Your task to perform on an android device: Open the stopwatch Image 0: 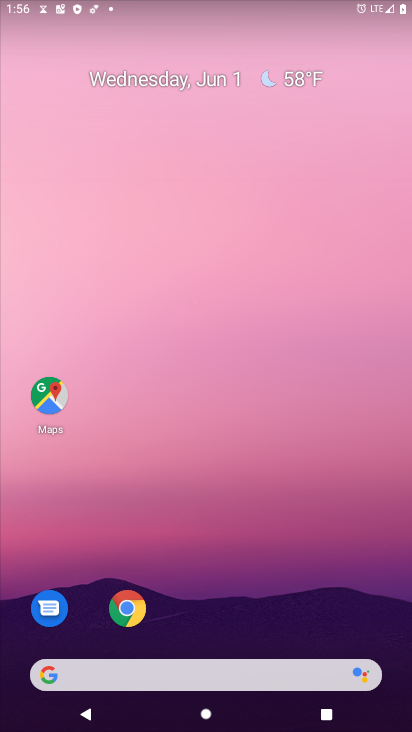
Step 0: drag from (169, 616) to (325, 67)
Your task to perform on an android device: Open the stopwatch Image 1: 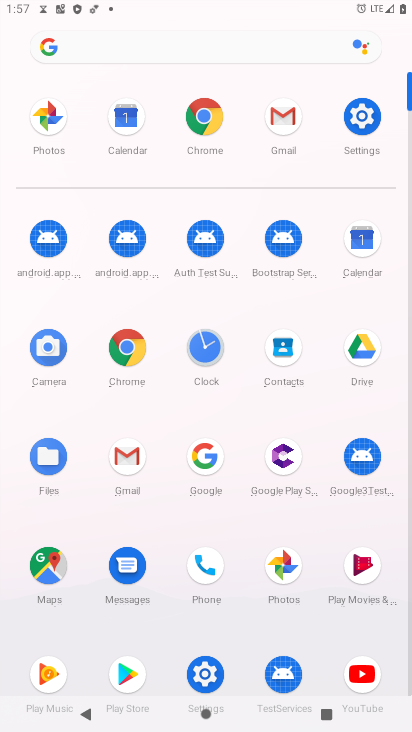
Step 1: click (190, 346)
Your task to perform on an android device: Open the stopwatch Image 2: 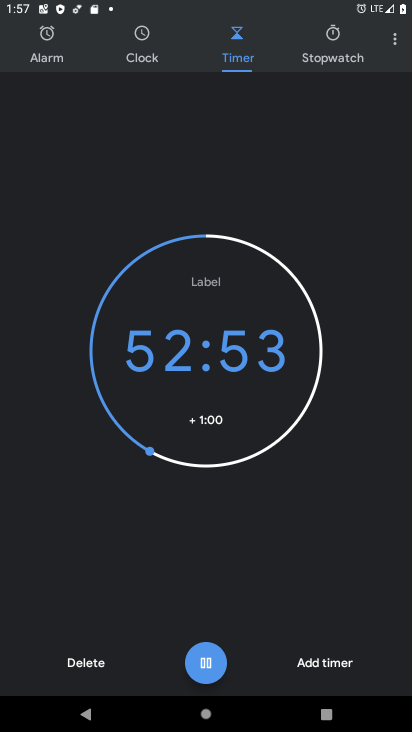
Step 2: click (308, 37)
Your task to perform on an android device: Open the stopwatch Image 3: 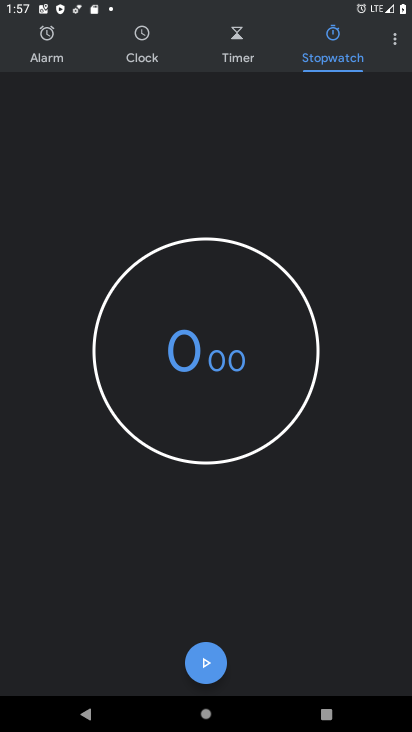
Step 3: task complete